Your task to perform on an android device: show emergency info Image 0: 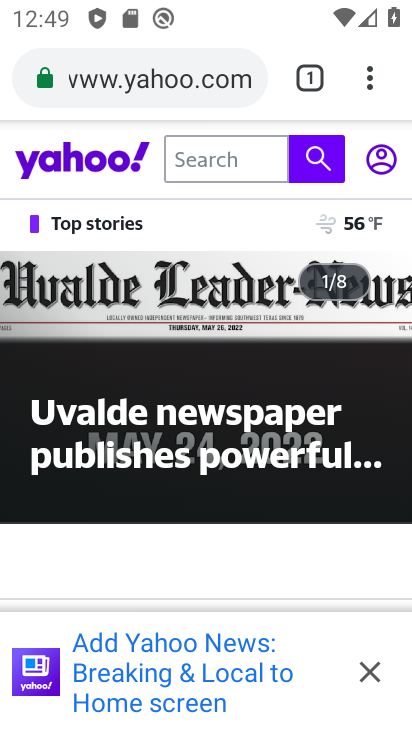
Step 0: press home button
Your task to perform on an android device: show emergency info Image 1: 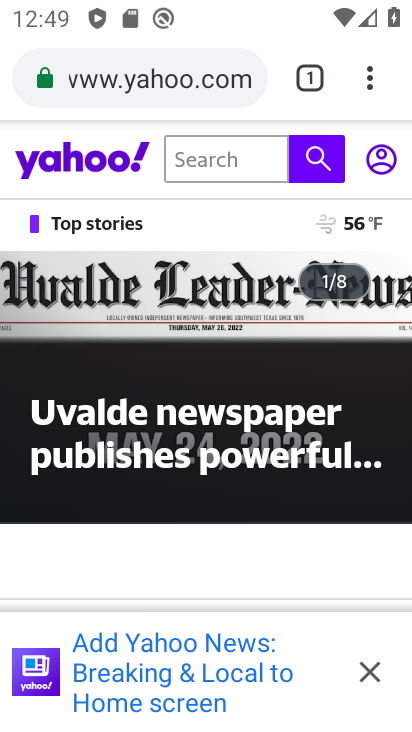
Step 1: press home button
Your task to perform on an android device: show emergency info Image 2: 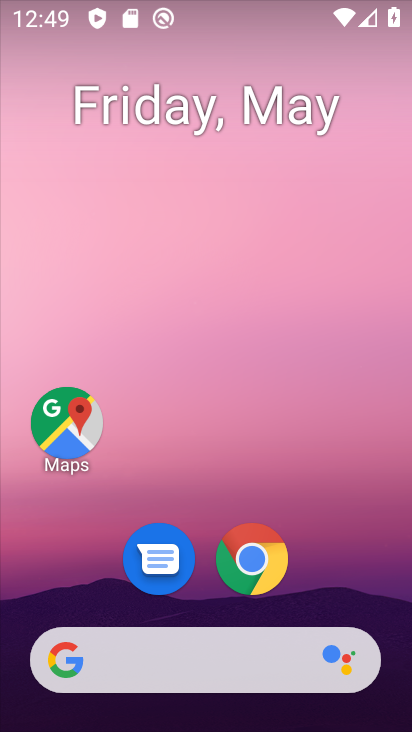
Step 2: drag from (376, 550) to (301, 78)
Your task to perform on an android device: show emergency info Image 3: 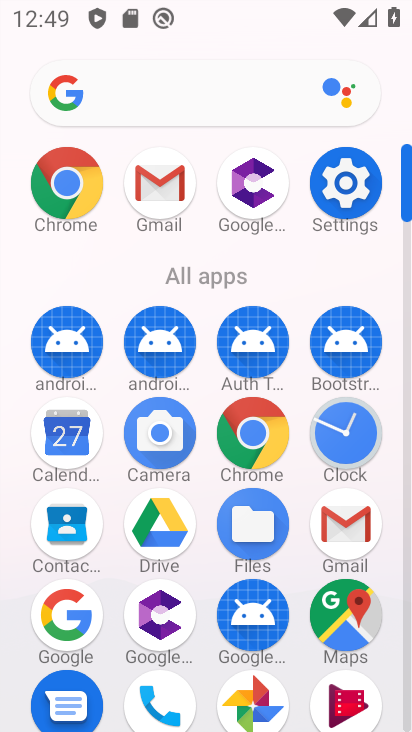
Step 3: click (347, 176)
Your task to perform on an android device: show emergency info Image 4: 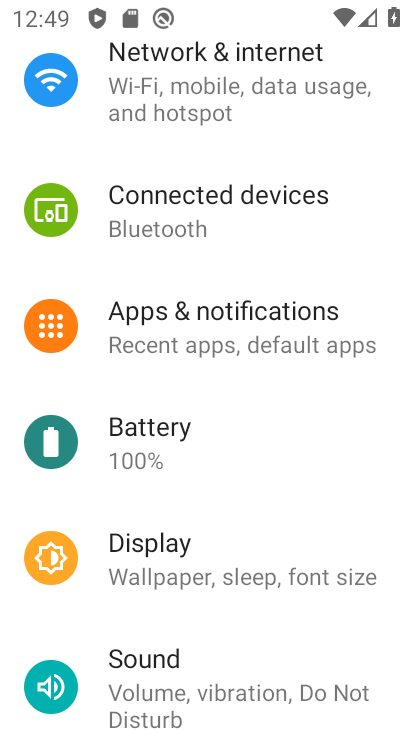
Step 4: drag from (200, 551) to (316, 38)
Your task to perform on an android device: show emergency info Image 5: 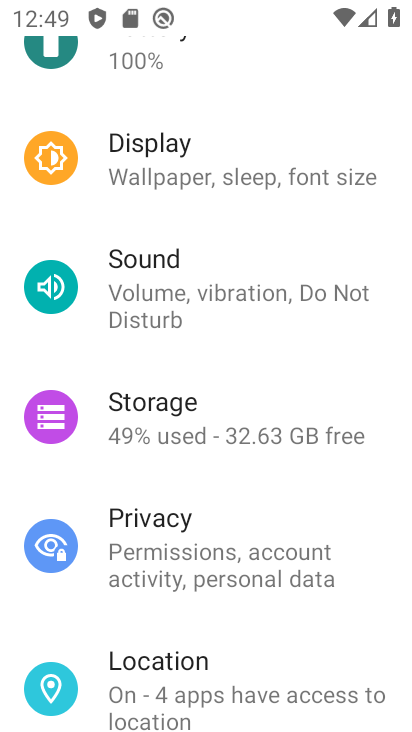
Step 5: drag from (227, 512) to (327, 17)
Your task to perform on an android device: show emergency info Image 6: 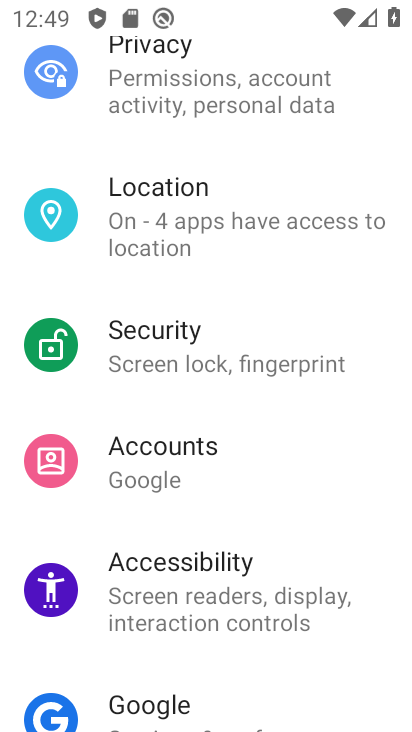
Step 6: drag from (269, 567) to (364, 76)
Your task to perform on an android device: show emergency info Image 7: 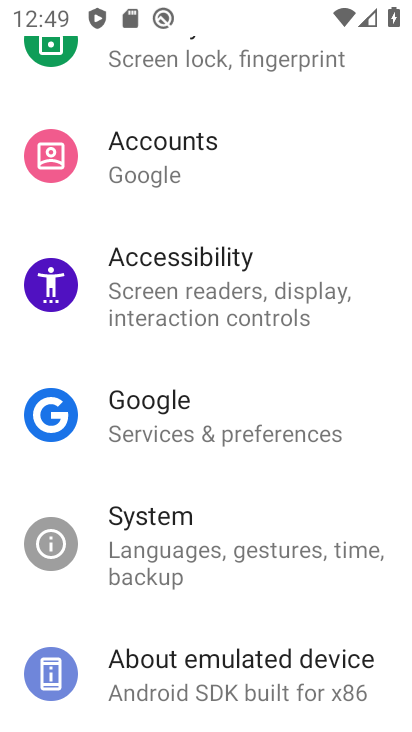
Step 7: click (221, 661)
Your task to perform on an android device: show emergency info Image 8: 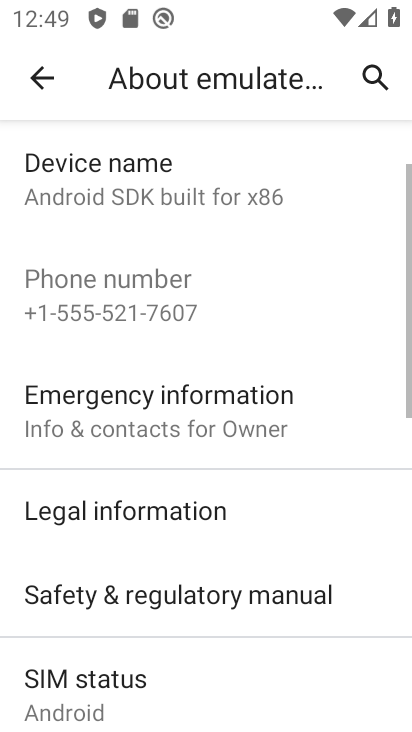
Step 8: click (145, 406)
Your task to perform on an android device: show emergency info Image 9: 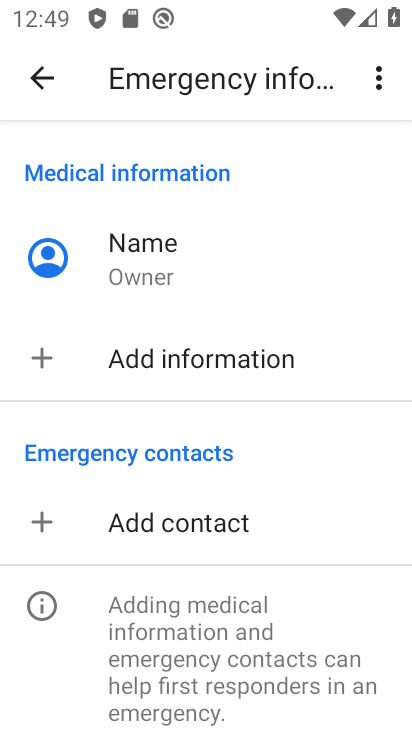
Step 9: task complete